Your task to perform on an android device: What is the recent news? Image 0: 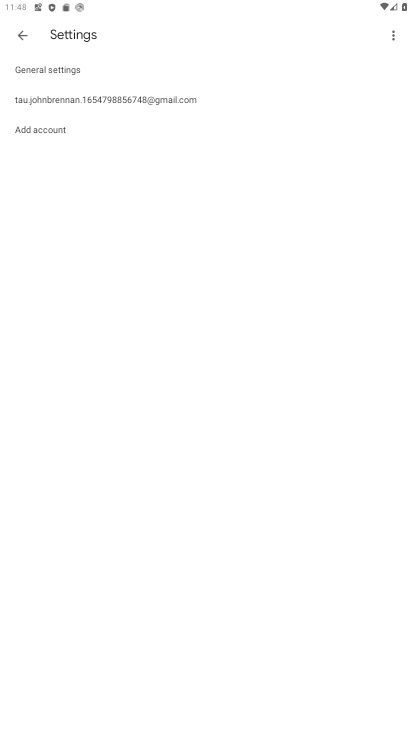
Step 0: press home button
Your task to perform on an android device: What is the recent news? Image 1: 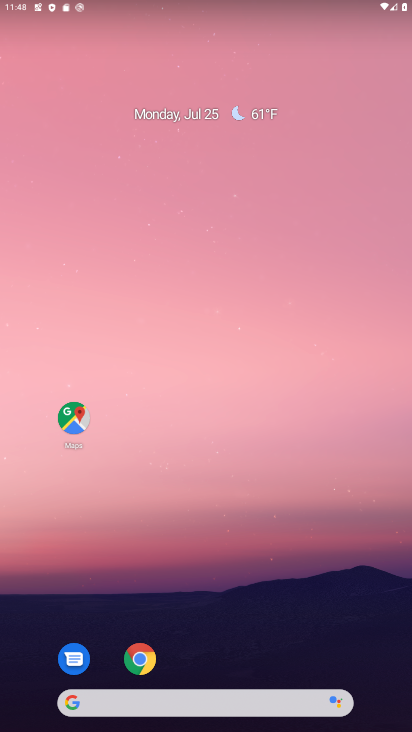
Step 1: task complete